Your task to perform on an android device: check android version Image 0: 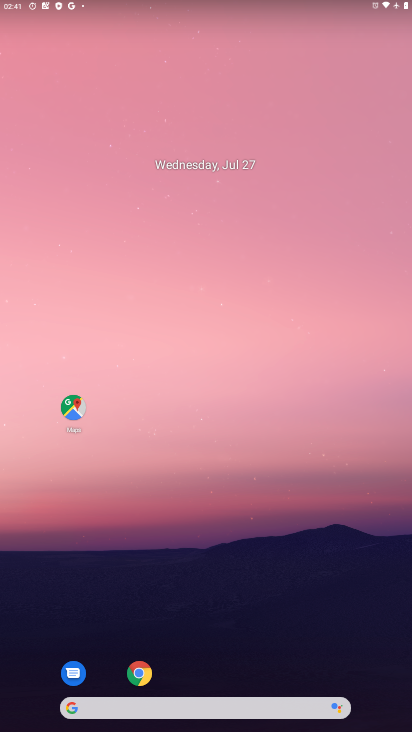
Step 0: drag from (214, 668) to (230, 49)
Your task to perform on an android device: check android version Image 1: 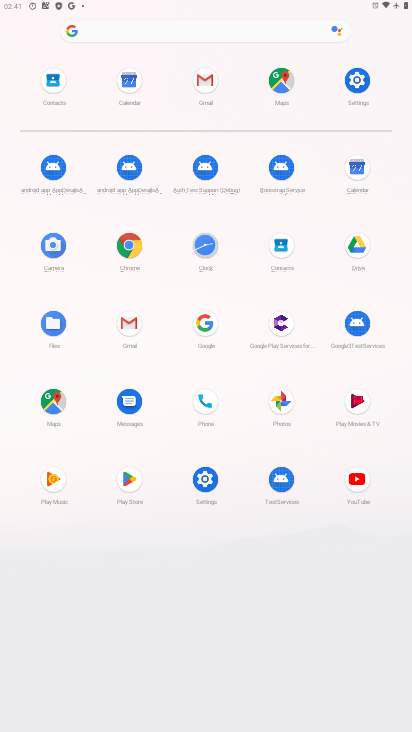
Step 1: click (358, 87)
Your task to perform on an android device: check android version Image 2: 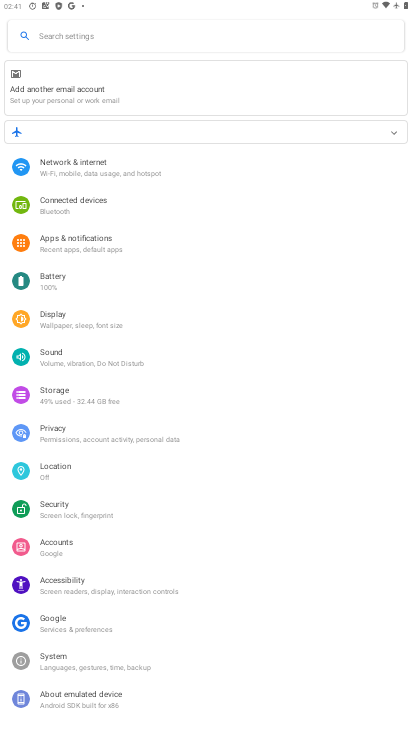
Step 2: drag from (195, 616) to (234, 351)
Your task to perform on an android device: check android version Image 3: 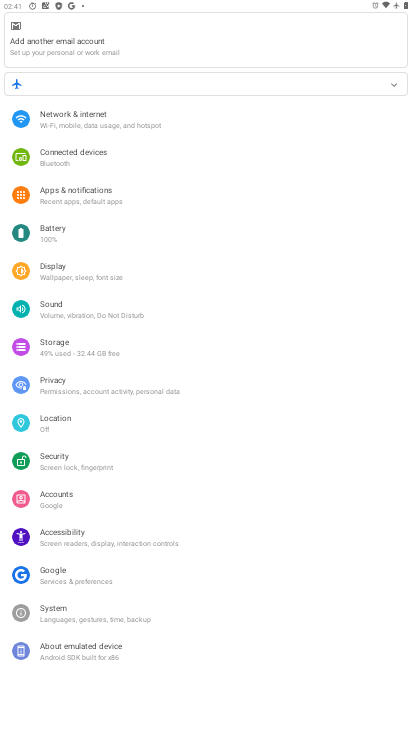
Step 3: click (79, 654)
Your task to perform on an android device: check android version Image 4: 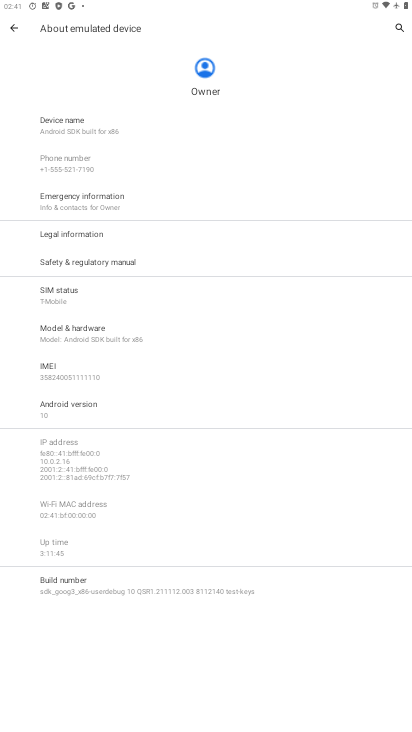
Step 4: click (56, 412)
Your task to perform on an android device: check android version Image 5: 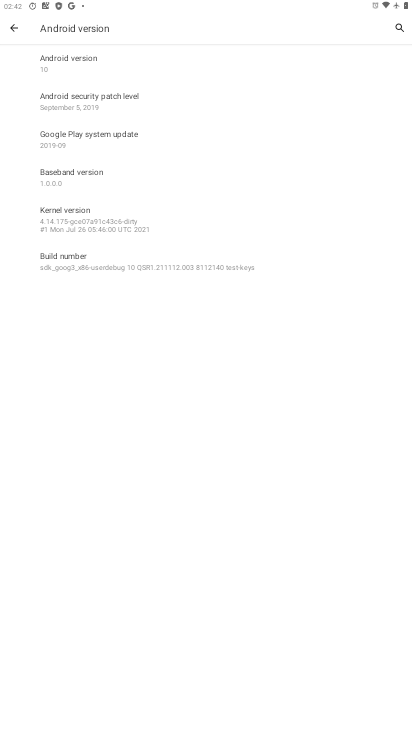
Step 5: task complete